Your task to perform on an android device: Open Wikipedia Image 0: 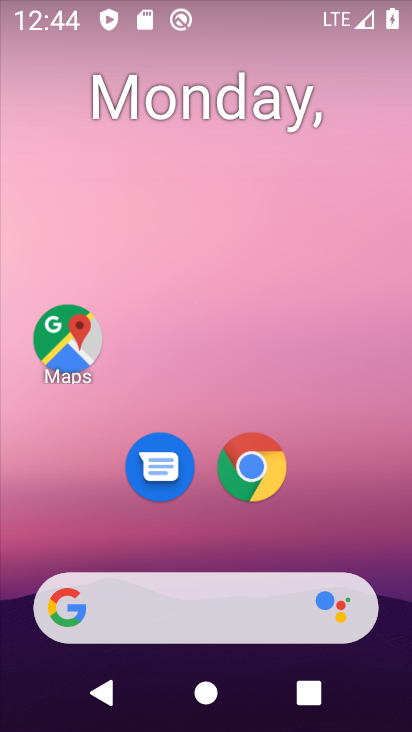
Step 0: click (248, 463)
Your task to perform on an android device: Open Wikipedia Image 1: 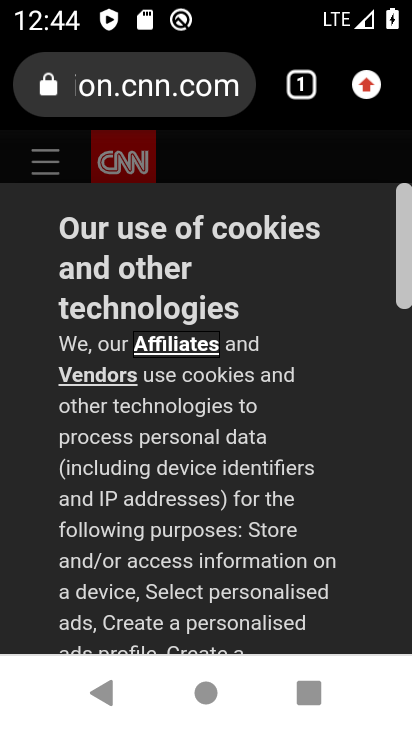
Step 1: click (371, 83)
Your task to perform on an android device: Open Wikipedia Image 2: 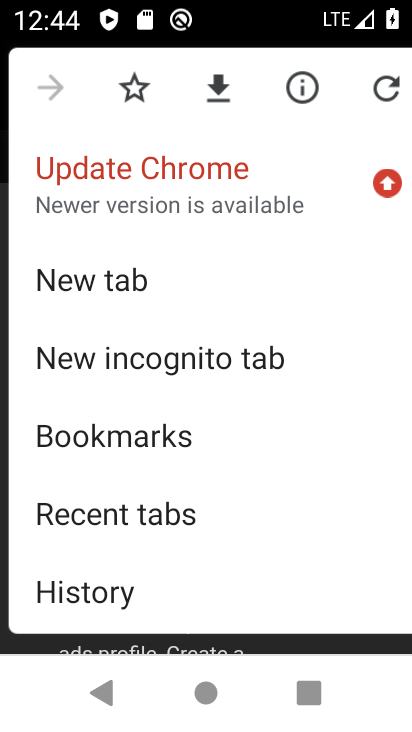
Step 2: click (87, 277)
Your task to perform on an android device: Open Wikipedia Image 3: 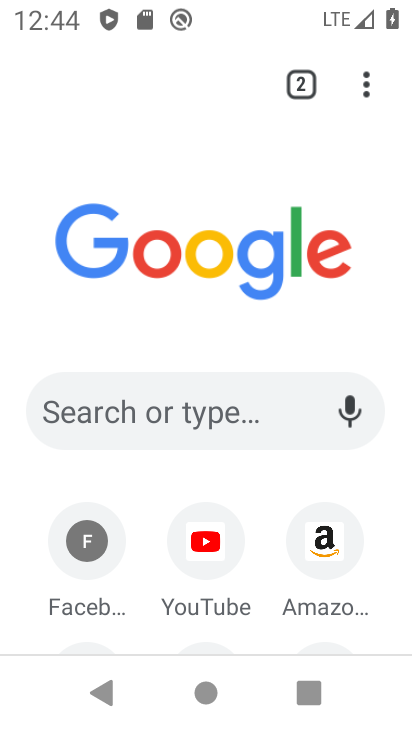
Step 3: task complete